Your task to perform on an android device: change alarm snooze length Image 0: 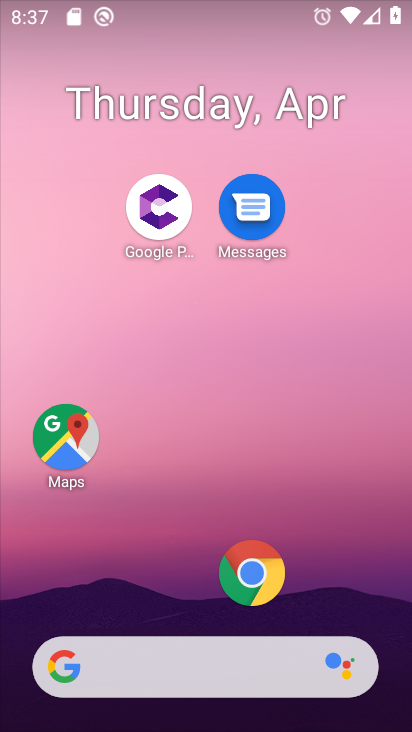
Step 0: drag from (311, 618) to (385, 76)
Your task to perform on an android device: change alarm snooze length Image 1: 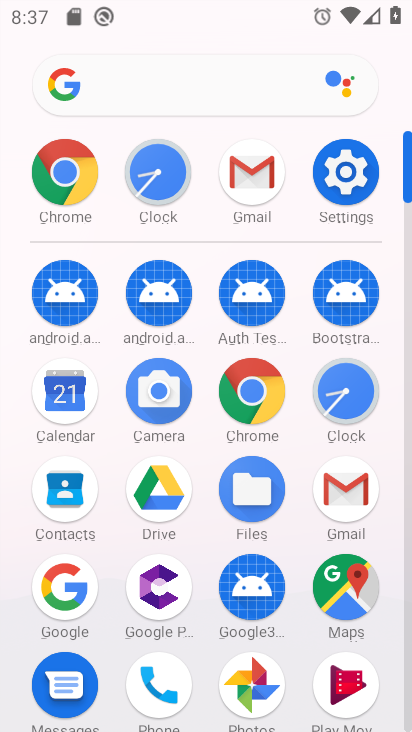
Step 1: click (345, 384)
Your task to perform on an android device: change alarm snooze length Image 2: 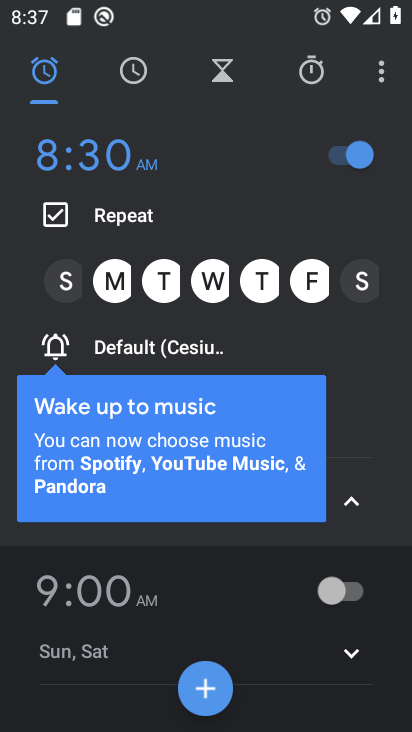
Step 2: click (379, 71)
Your task to perform on an android device: change alarm snooze length Image 3: 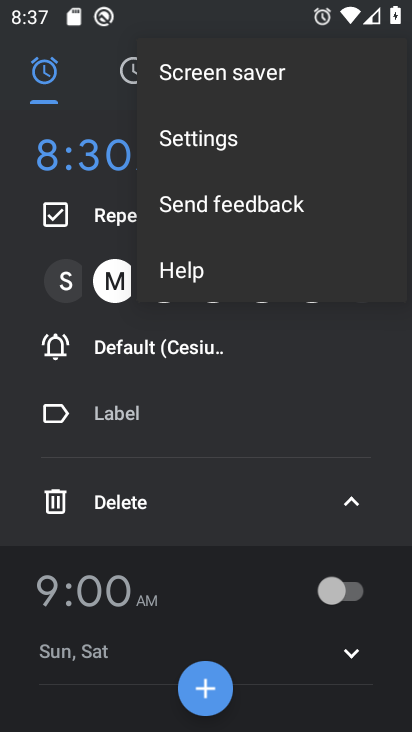
Step 3: click (244, 139)
Your task to perform on an android device: change alarm snooze length Image 4: 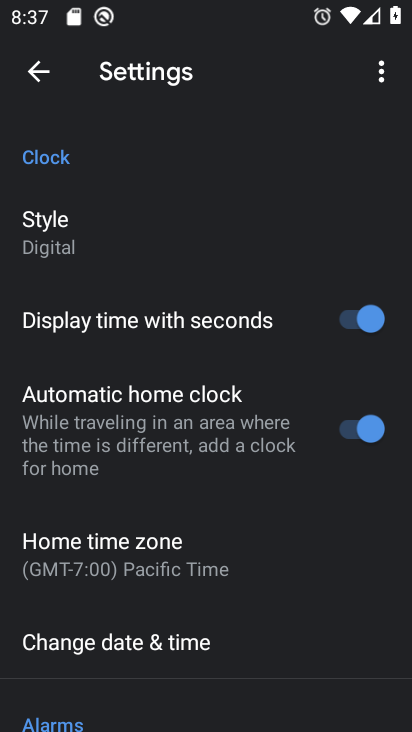
Step 4: drag from (251, 629) to (244, 116)
Your task to perform on an android device: change alarm snooze length Image 5: 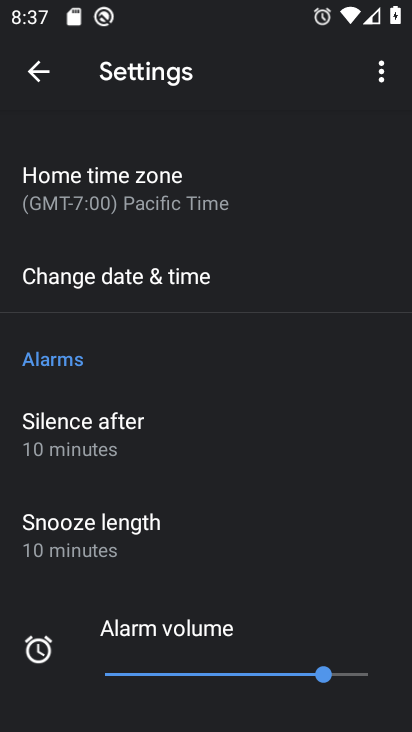
Step 5: click (131, 547)
Your task to perform on an android device: change alarm snooze length Image 6: 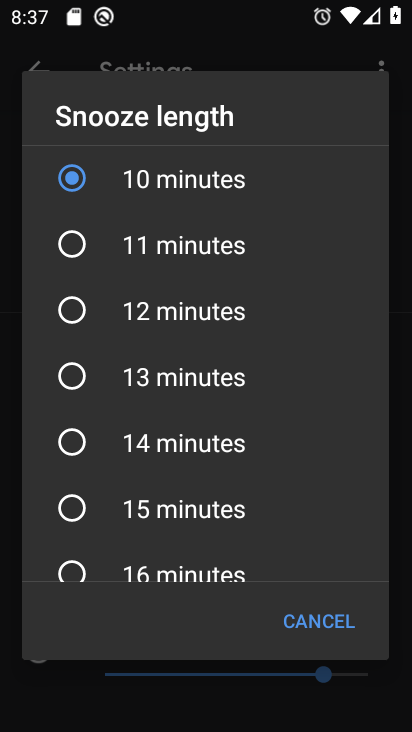
Step 6: click (68, 376)
Your task to perform on an android device: change alarm snooze length Image 7: 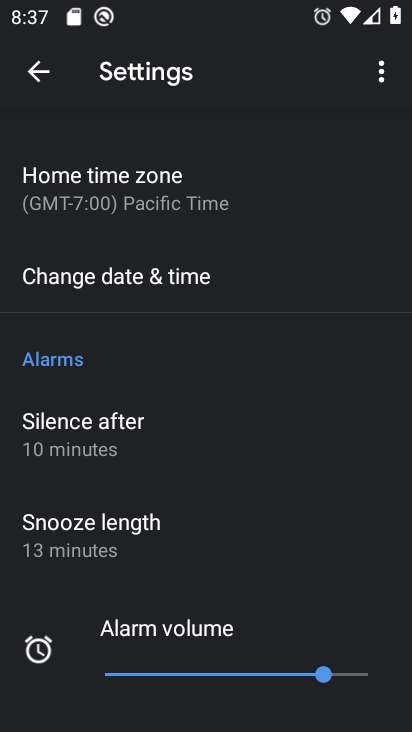
Step 7: task complete